Your task to perform on an android device: change timer sound Image 0: 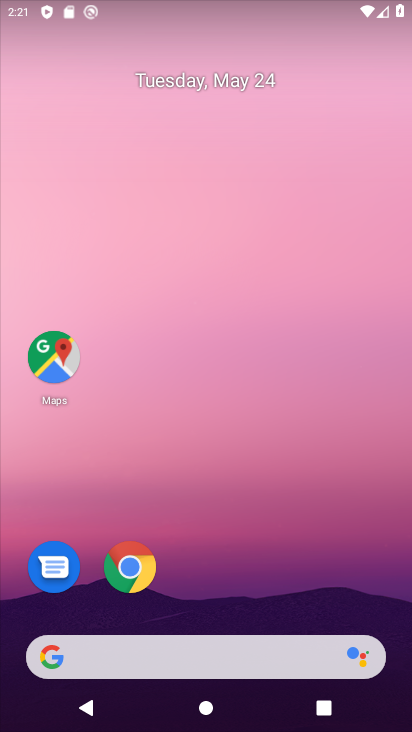
Step 0: drag from (214, 584) to (280, 99)
Your task to perform on an android device: change timer sound Image 1: 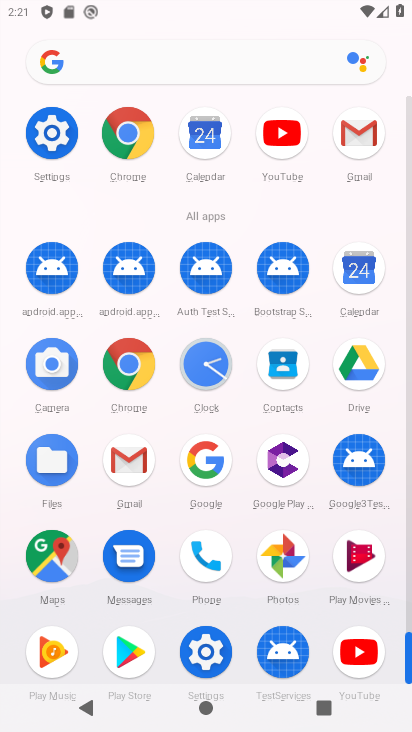
Step 1: click (216, 365)
Your task to perform on an android device: change timer sound Image 2: 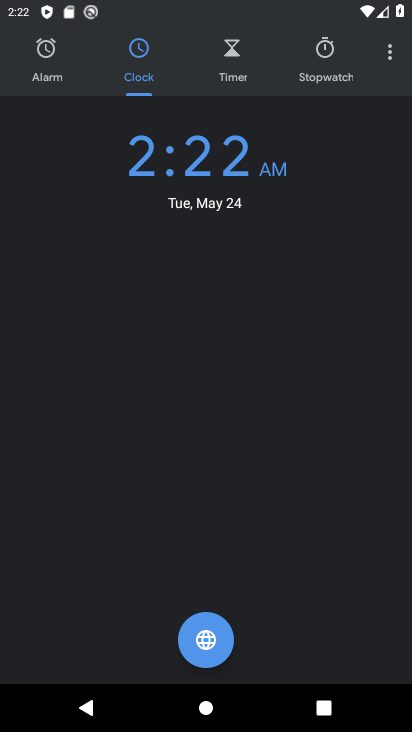
Step 2: click (387, 43)
Your task to perform on an android device: change timer sound Image 3: 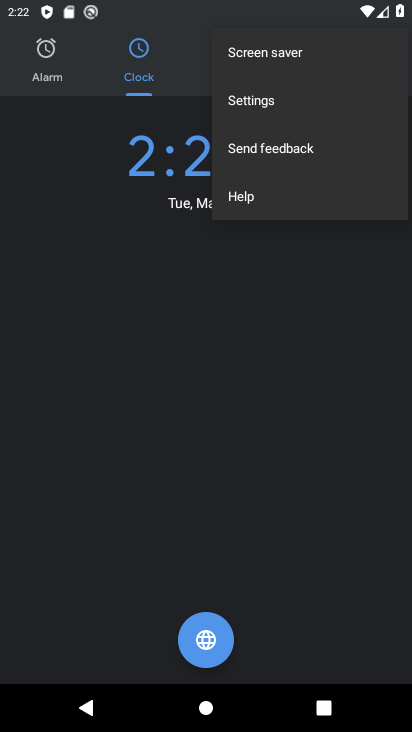
Step 3: click (247, 107)
Your task to perform on an android device: change timer sound Image 4: 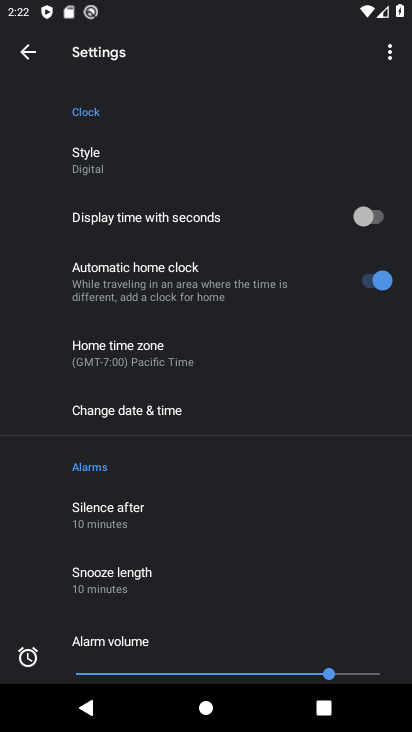
Step 4: drag from (144, 608) to (247, 207)
Your task to perform on an android device: change timer sound Image 5: 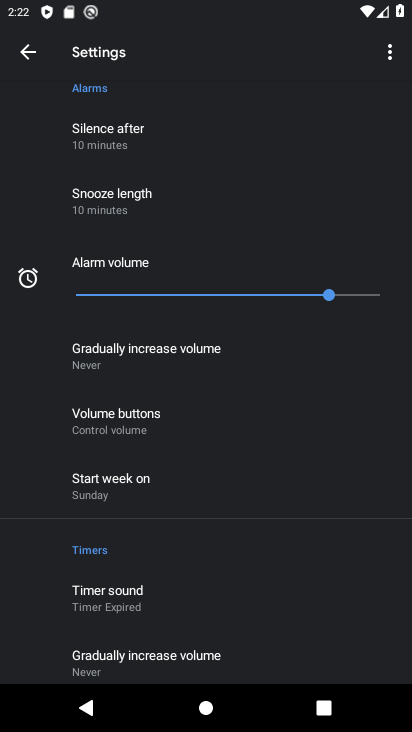
Step 5: click (134, 600)
Your task to perform on an android device: change timer sound Image 6: 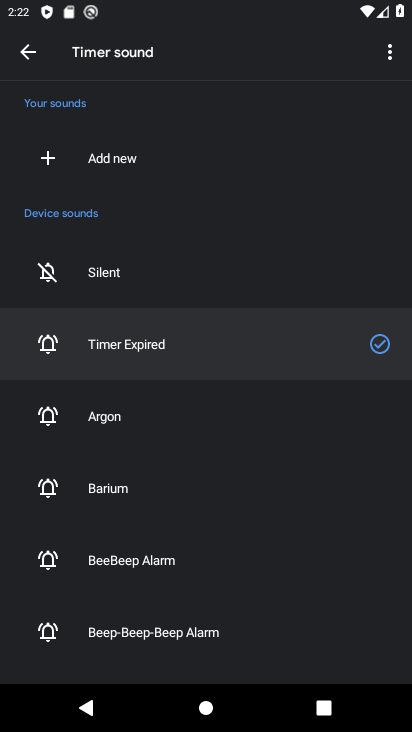
Step 6: click (73, 404)
Your task to perform on an android device: change timer sound Image 7: 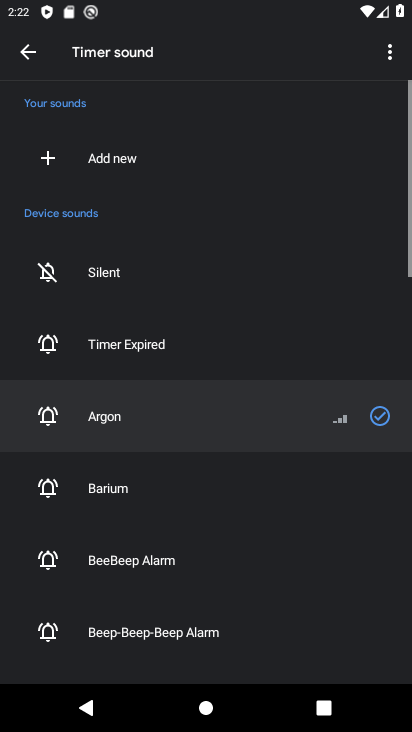
Step 7: task complete